Your task to perform on an android device: turn on wifi Image 0: 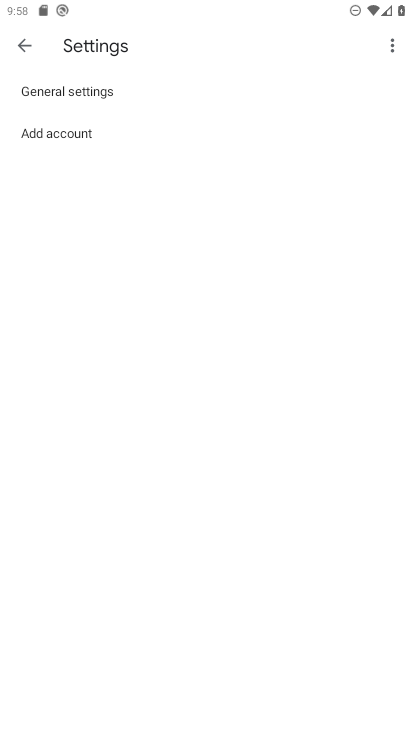
Step 0: press home button
Your task to perform on an android device: turn on wifi Image 1: 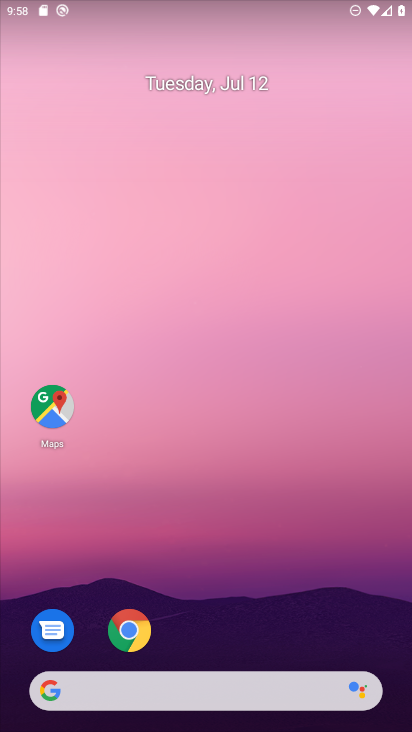
Step 1: drag from (205, 672) to (205, 262)
Your task to perform on an android device: turn on wifi Image 2: 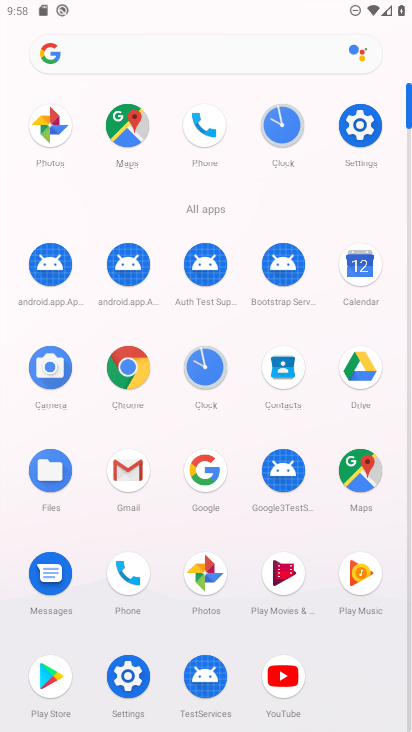
Step 2: click (358, 127)
Your task to perform on an android device: turn on wifi Image 3: 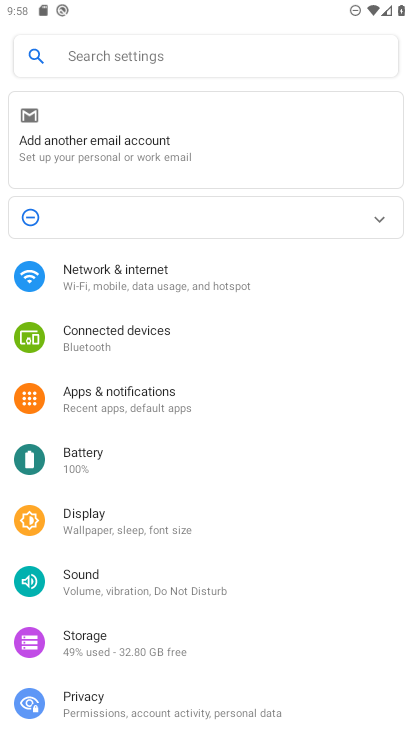
Step 3: click (121, 285)
Your task to perform on an android device: turn on wifi Image 4: 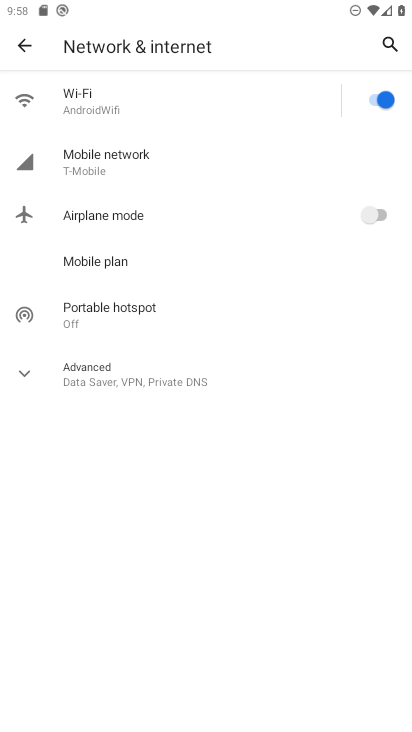
Step 4: task complete